Your task to perform on an android device: turn vacation reply on in the gmail app Image 0: 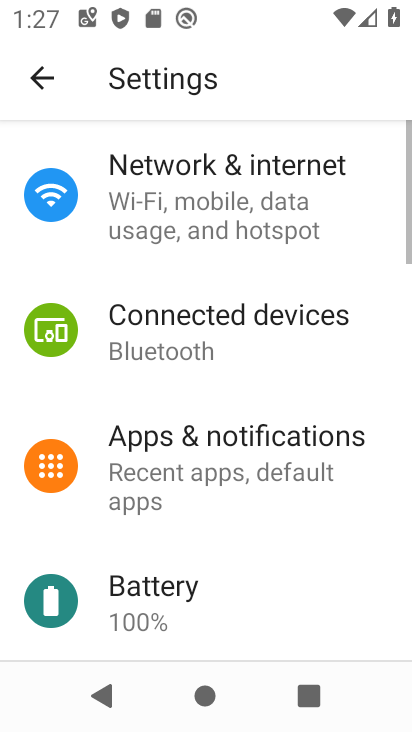
Step 0: drag from (97, 11) to (141, 542)
Your task to perform on an android device: turn vacation reply on in the gmail app Image 1: 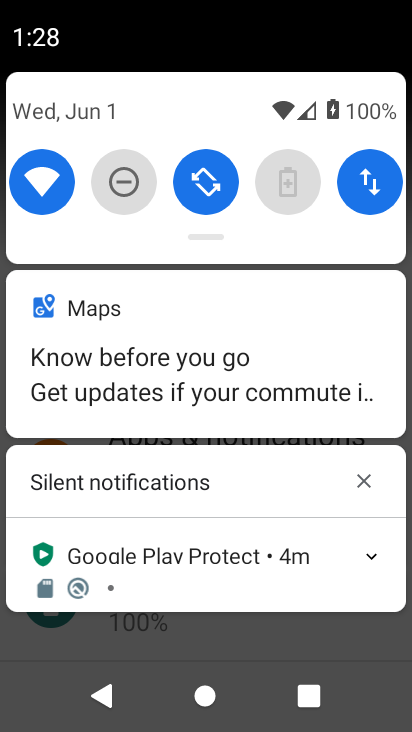
Step 1: click (35, 183)
Your task to perform on an android device: turn vacation reply on in the gmail app Image 2: 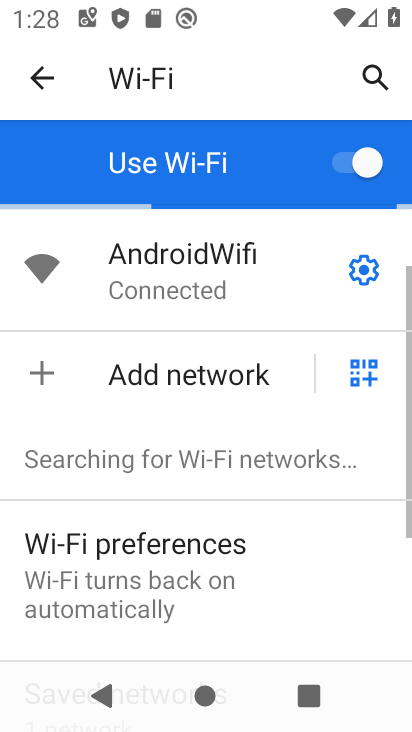
Step 2: press back button
Your task to perform on an android device: turn vacation reply on in the gmail app Image 3: 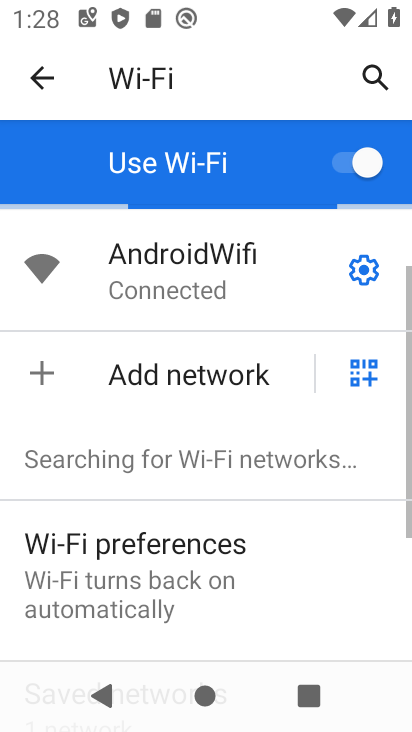
Step 3: press back button
Your task to perform on an android device: turn vacation reply on in the gmail app Image 4: 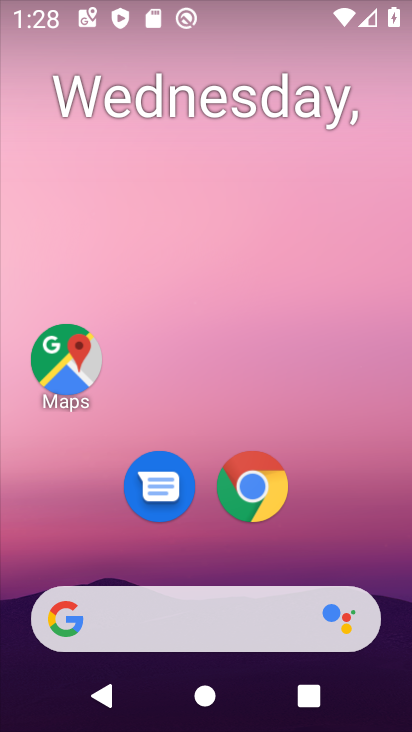
Step 4: drag from (196, 536) to (229, 8)
Your task to perform on an android device: turn vacation reply on in the gmail app Image 5: 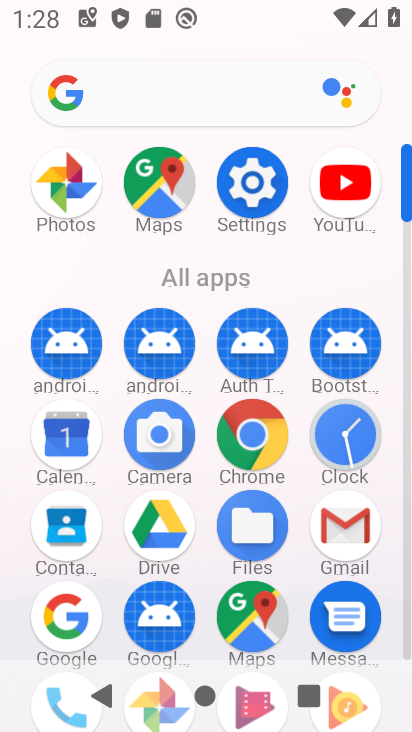
Step 5: click (348, 521)
Your task to perform on an android device: turn vacation reply on in the gmail app Image 6: 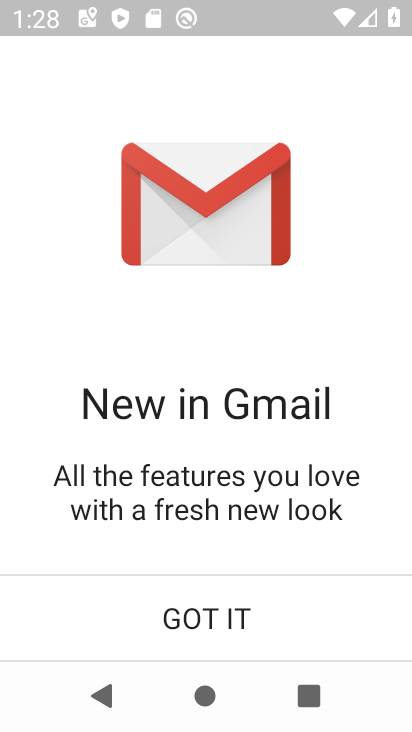
Step 6: click (194, 611)
Your task to perform on an android device: turn vacation reply on in the gmail app Image 7: 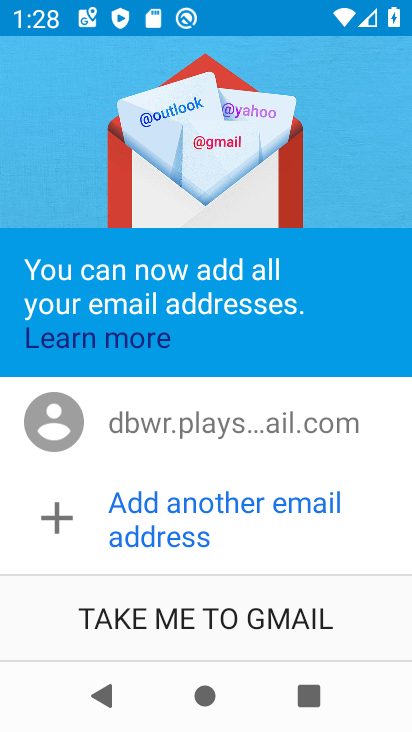
Step 7: click (215, 624)
Your task to perform on an android device: turn vacation reply on in the gmail app Image 8: 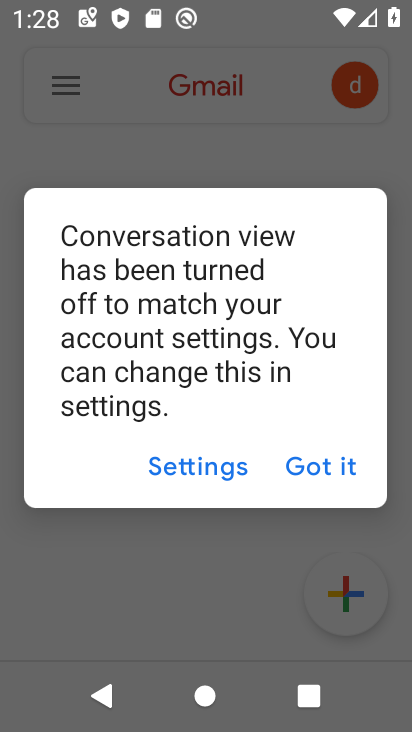
Step 8: click (306, 465)
Your task to perform on an android device: turn vacation reply on in the gmail app Image 9: 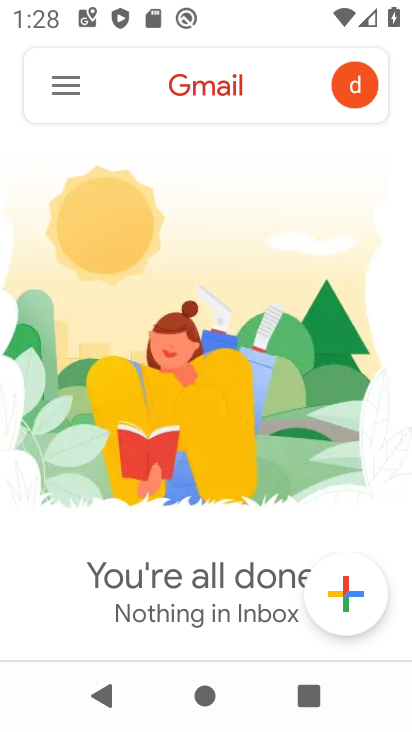
Step 9: click (61, 87)
Your task to perform on an android device: turn vacation reply on in the gmail app Image 10: 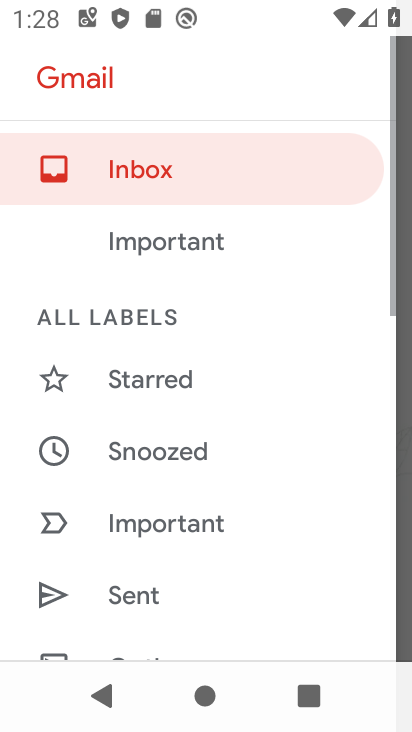
Step 10: drag from (204, 585) to (256, 47)
Your task to perform on an android device: turn vacation reply on in the gmail app Image 11: 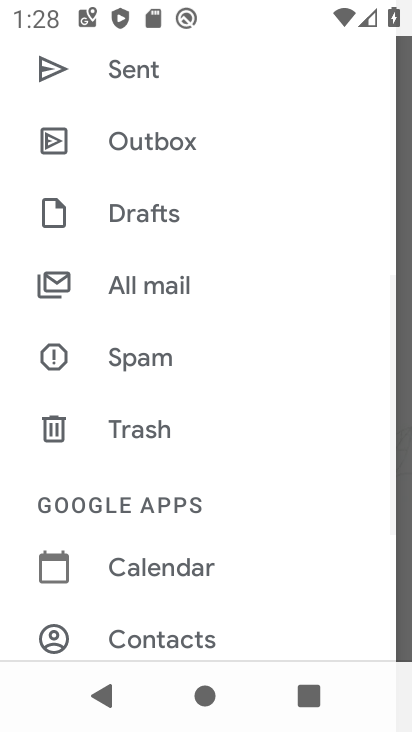
Step 11: drag from (174, 575) to (239, 52)
Your task to perform on an android device: turn vacation reply on in the gmail app Image 12: 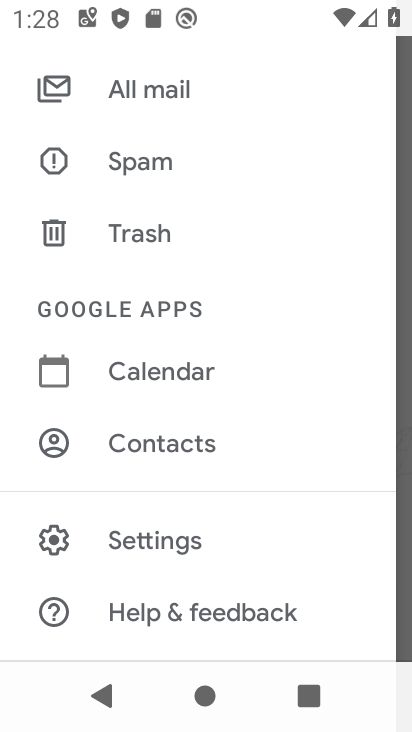
Step 12: click (158, 546)
Your task to perform on an android device: turn vacation reply on in the gmail app Image 13: 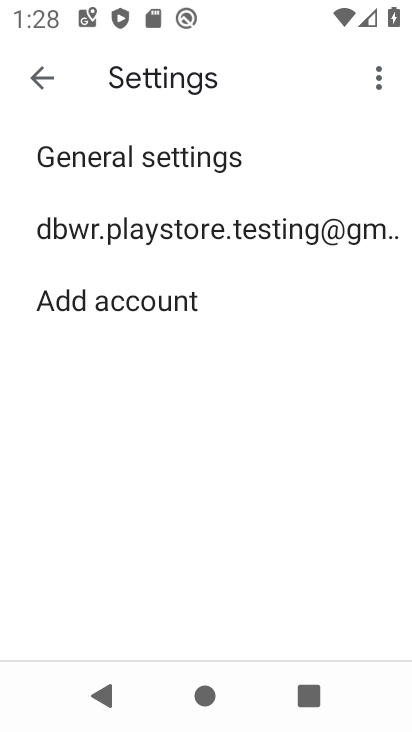
Step 13: click (118, 220)
Your task to perform on an android device: turn vacation reply on in the gmail app Image 14: 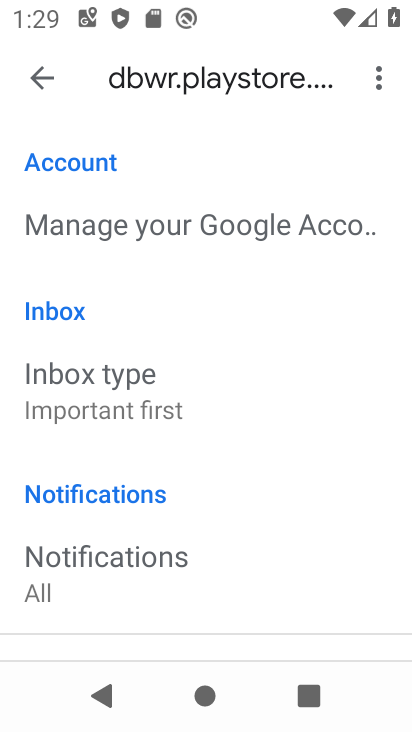
Step 14: drag from (155, 627) to (224, 54)
Your task to perform on an android device: turn vacation reply on in the gmail app Image 15: 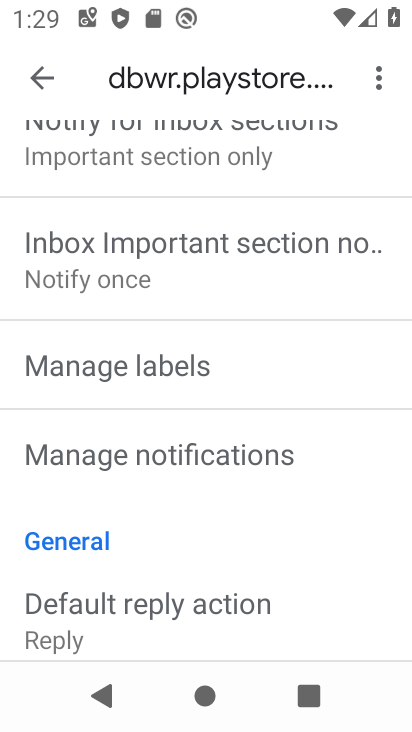
Step 15: drag from (194, 607) to (244, 25)
Your task to perform on an android device: turn vacation reply on in the gmail app Image 16: 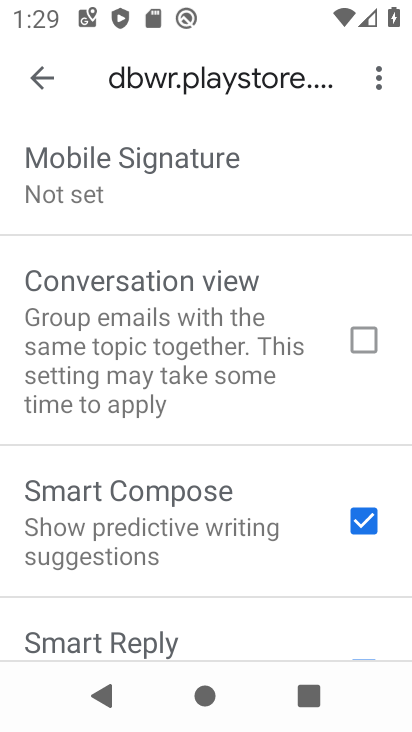
Step 16: drag from (201, 590) to (256, 40)
Your task to perform on an android device: turn vacation reply on in the gmail app Image 17: 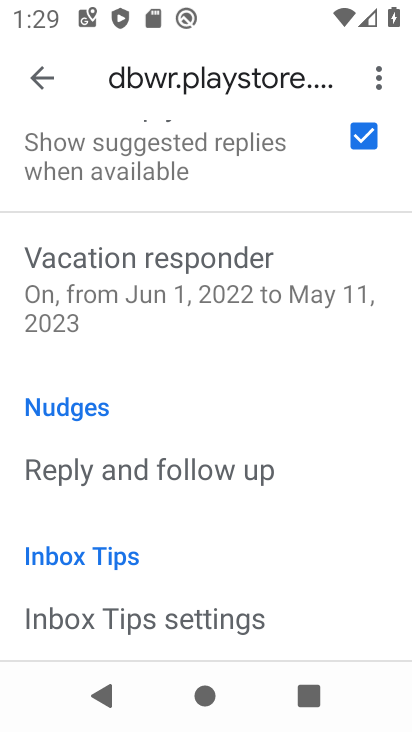
Step 17: click (133, 274)
Your task to perform on an android device: turn vacation reply on in the gmail app Image 18: 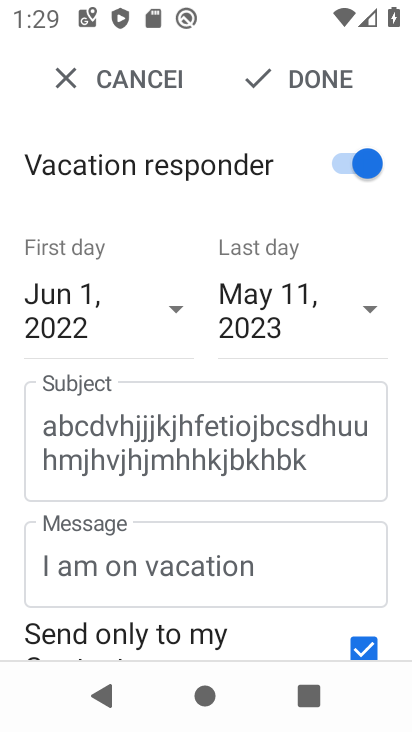
Step 18: task complete